Your task to perform on an android device: turn off sleep mode Image 0: 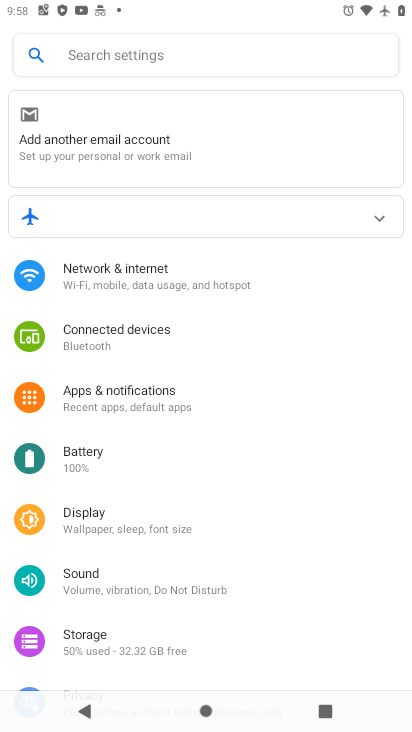
Step 0: press home button
Your task to perform on an android device: turn off sleep mode Image 1: 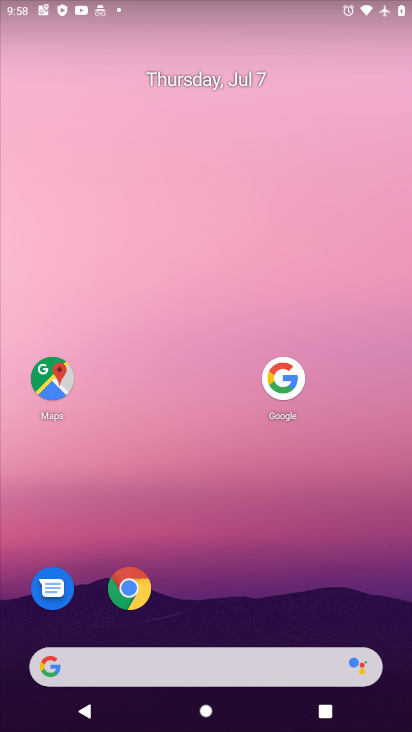
Step 1: drag from (218, 650) to (325, 17)
Your task to perform on an android device: turn off sleep mode Image 2: 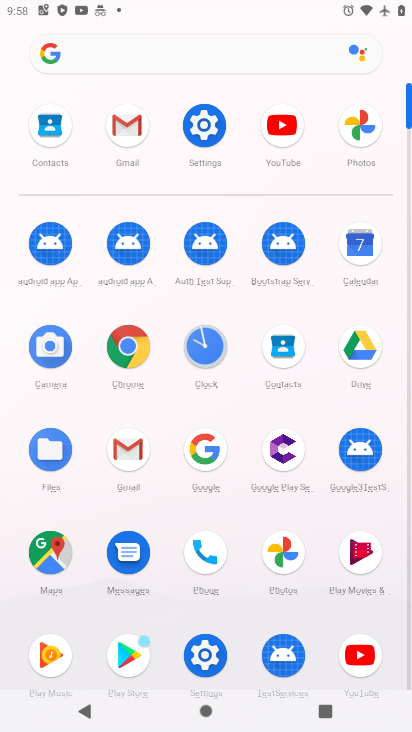
Step 2: click (213, 125)
Your task to perform on an android device: turn off sleep mode Image 3: 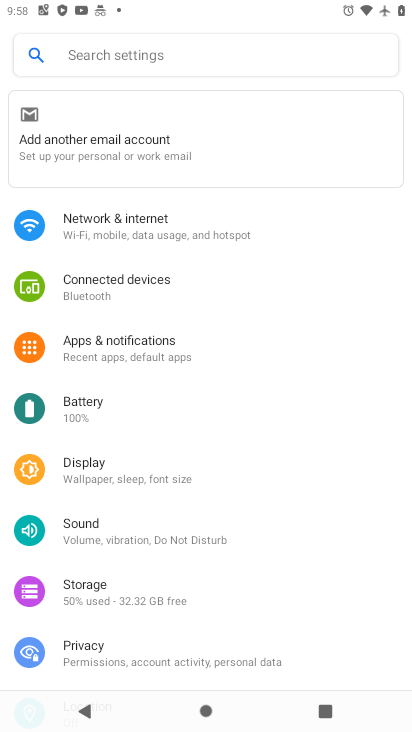
Step 3: click (130, 474)
Your task to perform on an android device: turn off sleep mode Image 4: 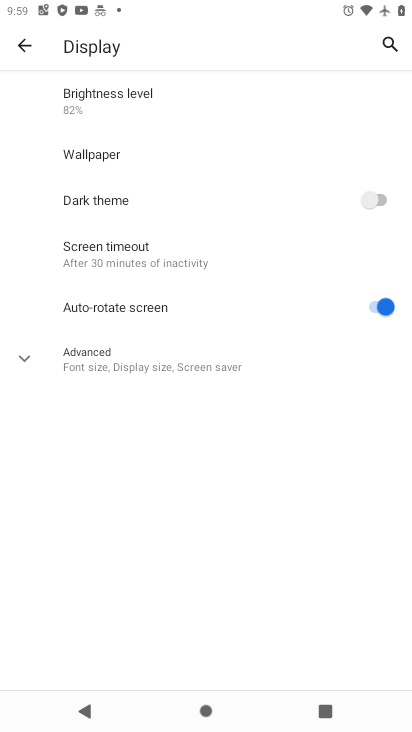
Step 4: task complete